Your task to perform on an android device: turn off data saver in the chrome app Image 0: 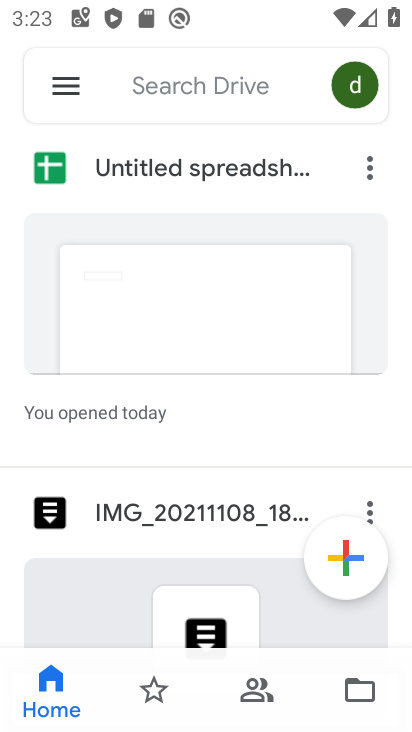
Step 0: press home button
Your task to perform on an android device: turn off data saver in the chrome app Image 1: 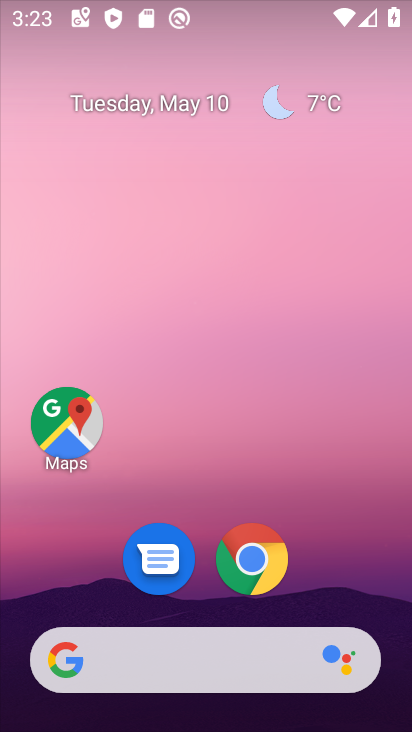
Step 1: click (274, 570)
Your task to perform on an android device: turn off data saver in the chrome app Image 2: 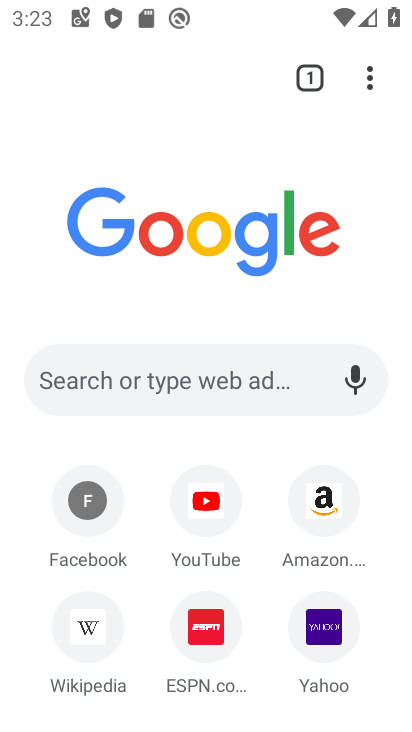
Step 2: drag from (370, 84) to (176, 626)
Your task to perform on an android device: turn off data saver in the chrome app Image 3: 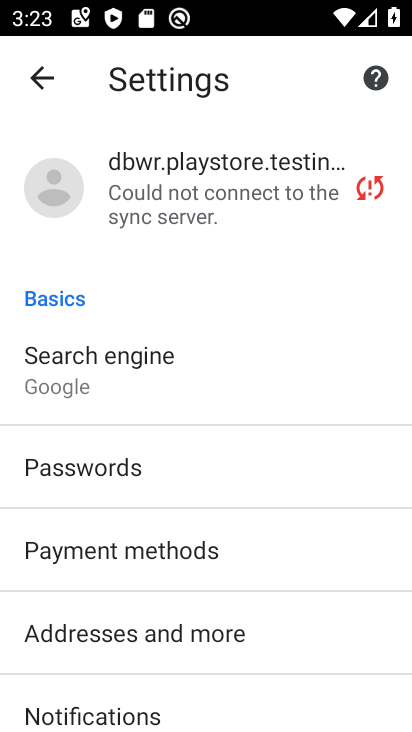
Step 3: drag from (222, 668) to (256, 344)
Your task to perform on an android device: turn off data saver in the chrome app Image 4: 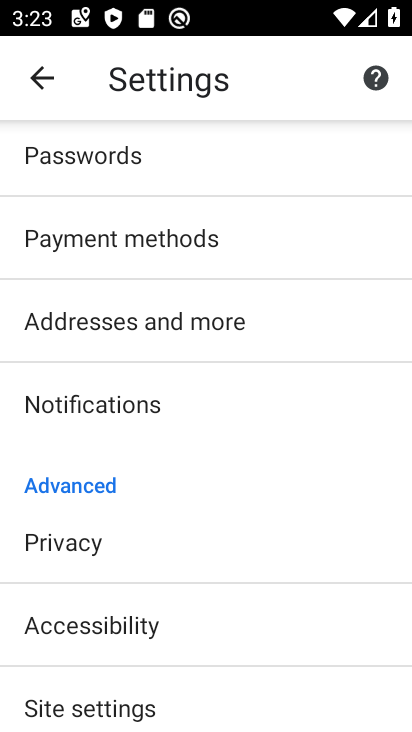
Step 4: drag from (208, 699) to (202, 350)
Your task to perform on an android device: turn off data saver in the chrome app Image 5: 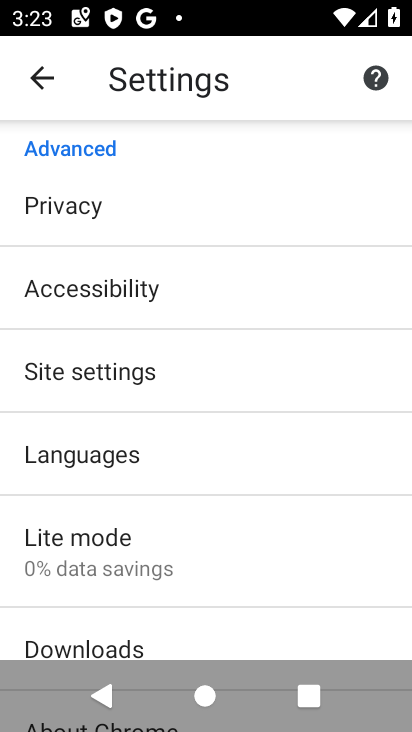
Step 5: click (146, 555)
Your task to perform on an android device: turn off data saver in the chrome app Image 6: 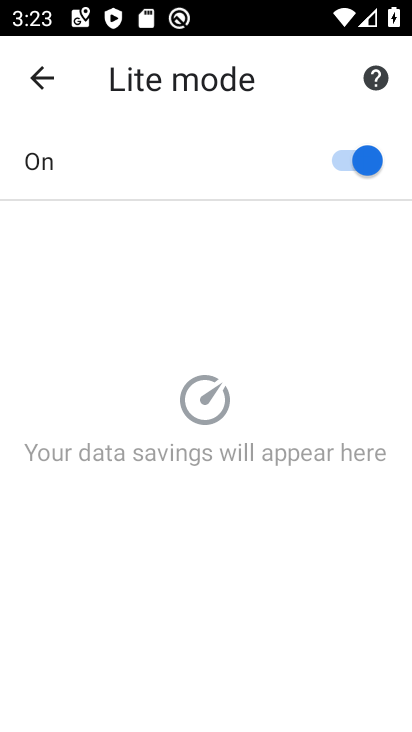
Step 6: click (364, 157)
Your task to perform on an android device: turn off data saver in the chrome app Image 7: 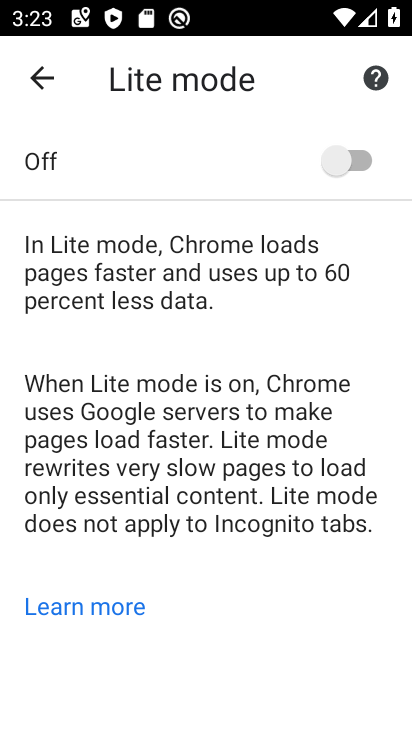
Step 7: task complete